Your task to perform on an android device: When is my next meeting? Image 0: 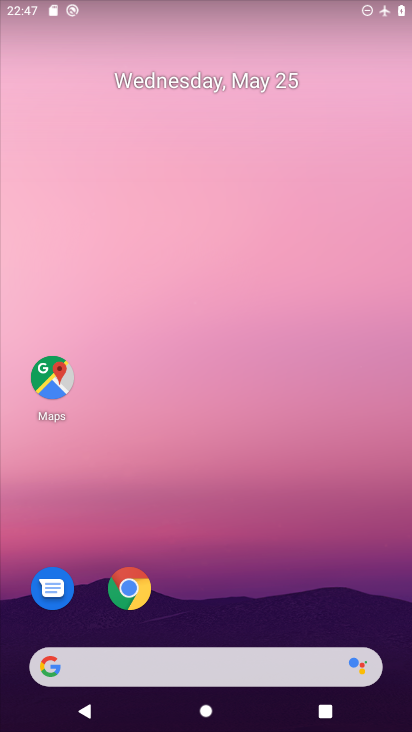
Step 0: drag from (296, 599) to (224, 93)
Your task to perform on an android device: When is my next meeting? Image 1: 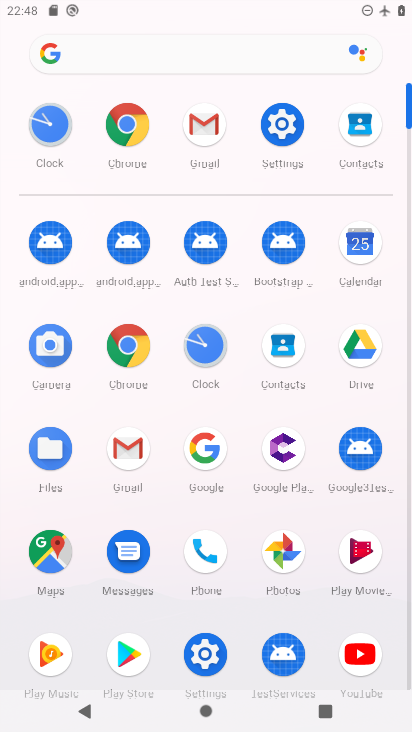
Step 1: click (349, 254)
Your task to perform on an android device: When is my next meeting? Image 2: 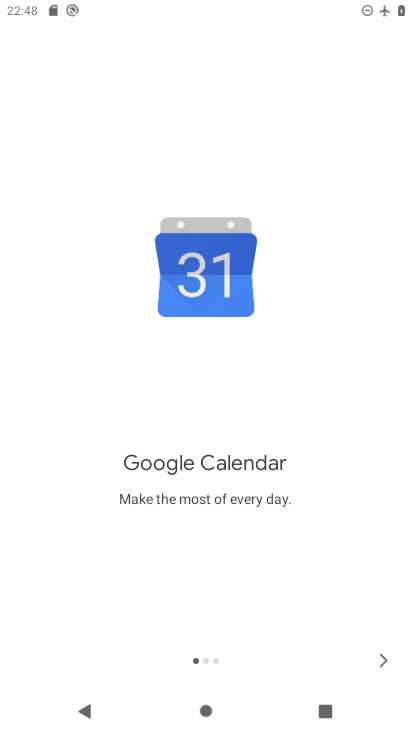
Step 2: click (391, 651)
Your task to perform on an android device: When is my next meeting? Image 3: 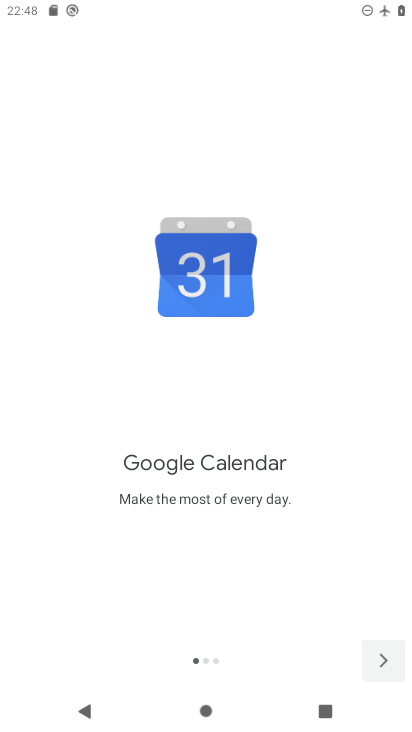
Step 3: click (390, 651)
Your task to perform on an android device: When is my next meeting? Image 4: 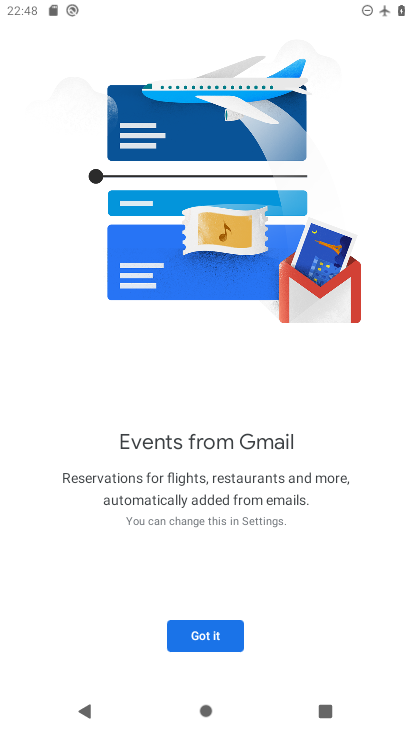
Step 4: click (186, 648)
Your task to perform on an android device: When is my next meeting? Image 5: 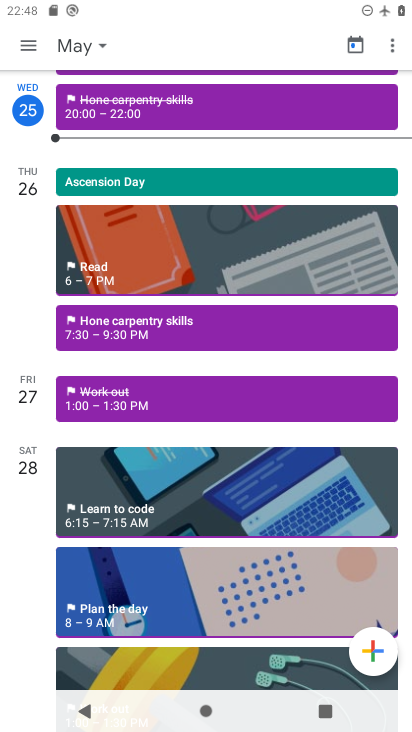
Step 5: task complete